Your task to perform on an android device: toggle priority inbox in the gmail app Image 0: 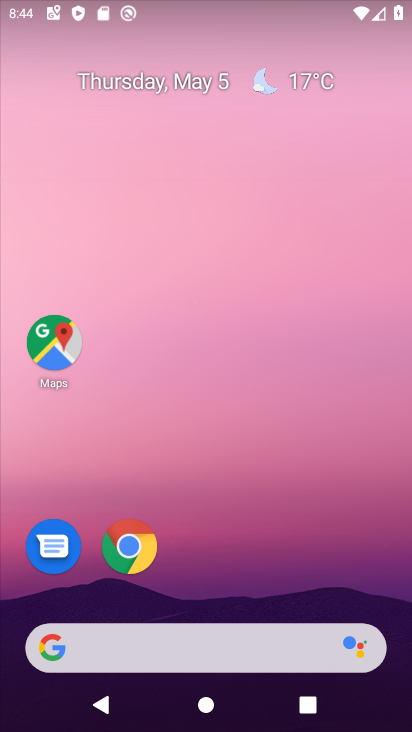
Step 0: drag from (180, 646) to (349, 101)
Your task to perform on an android device: toggle priority inbox in the gmail app Image 1: 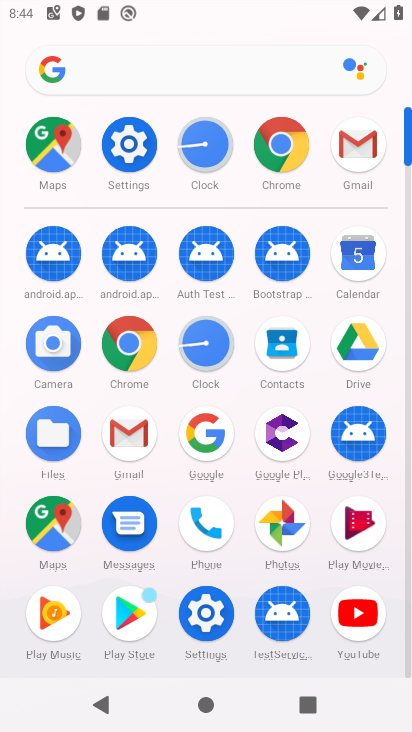
Step 1: click (360, 157)
Your task to perform on an android device: toggle priority inbox in the gmail app Image 2: 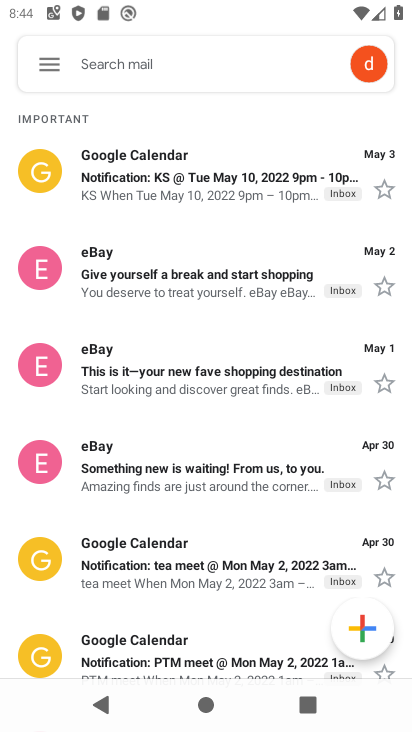
Step 2: click (56, 68)
Your task to perform on an android device: toggle priority inbox in the gmail app Image 3: 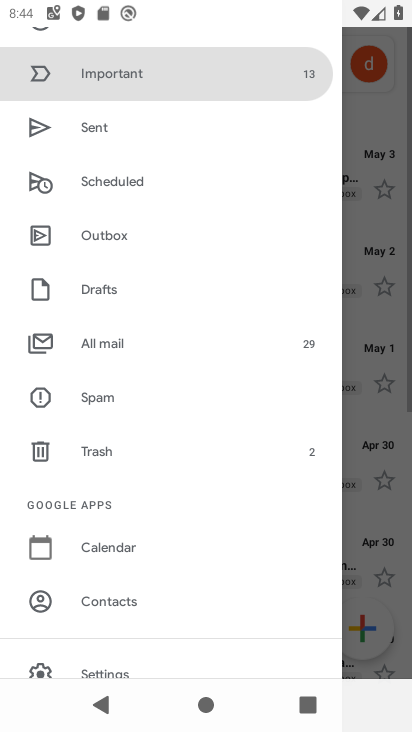
Step 3: drag from (136, 645) to (232, 220)
Your task to perform on an android device: toggle priority inbox in the gmail app Image 4: 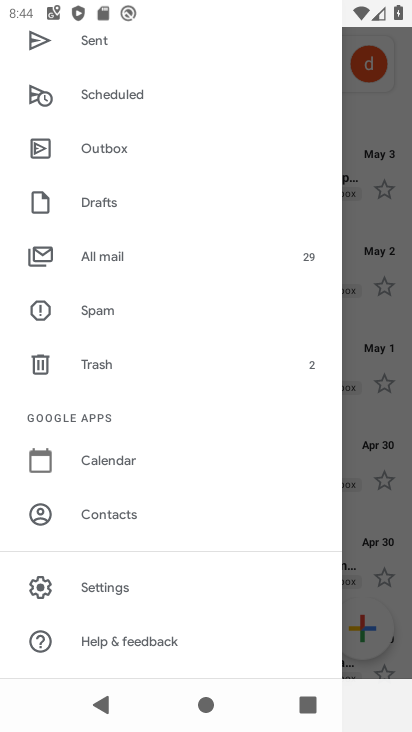
Step 4: click (104, 584)
Your task to perform on an android device: toggle priority inbox in the gmail app Image 5: 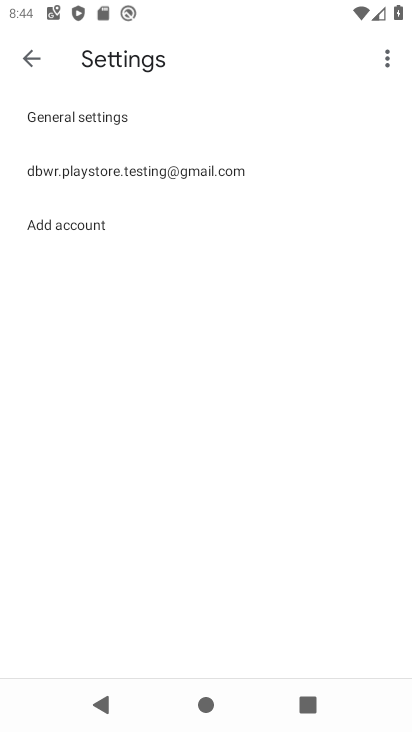
Step 5: click (166, 172)
Your task to perform on an android device: toggle priority inbox in the gmail app Image 6: 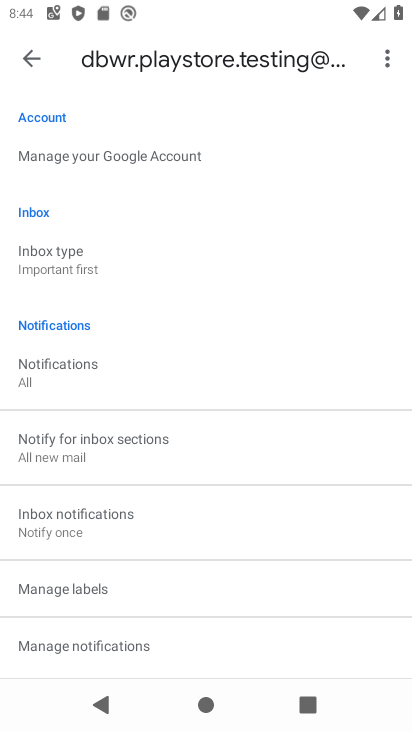
Step 6: click (60, 264)
Your task to perform on an android device: toggle priority inbox in the gmail app Image 7: 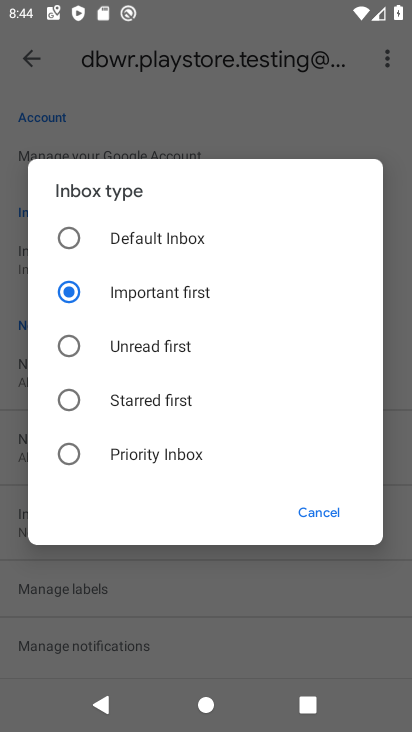
Step 7: click (67, 457)
Your task to perform on an android device: toggle priority inbox in the gmail app Image 8: 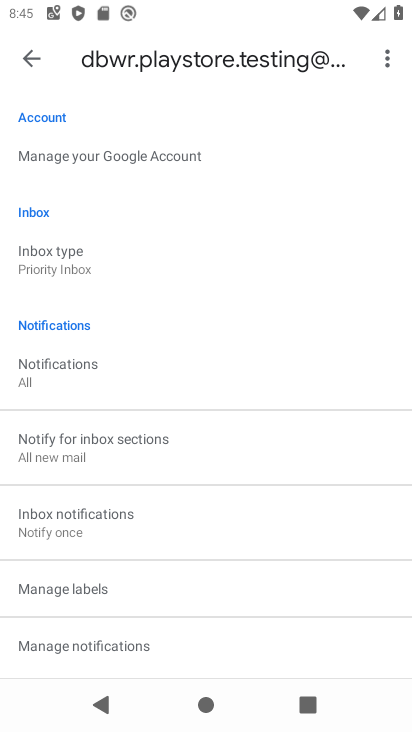
Step 8: task complete